Your task to perform on an android device: Search for macbook pro 15 inch on newegg, select the first entry, and add it to the cart. Image 0: 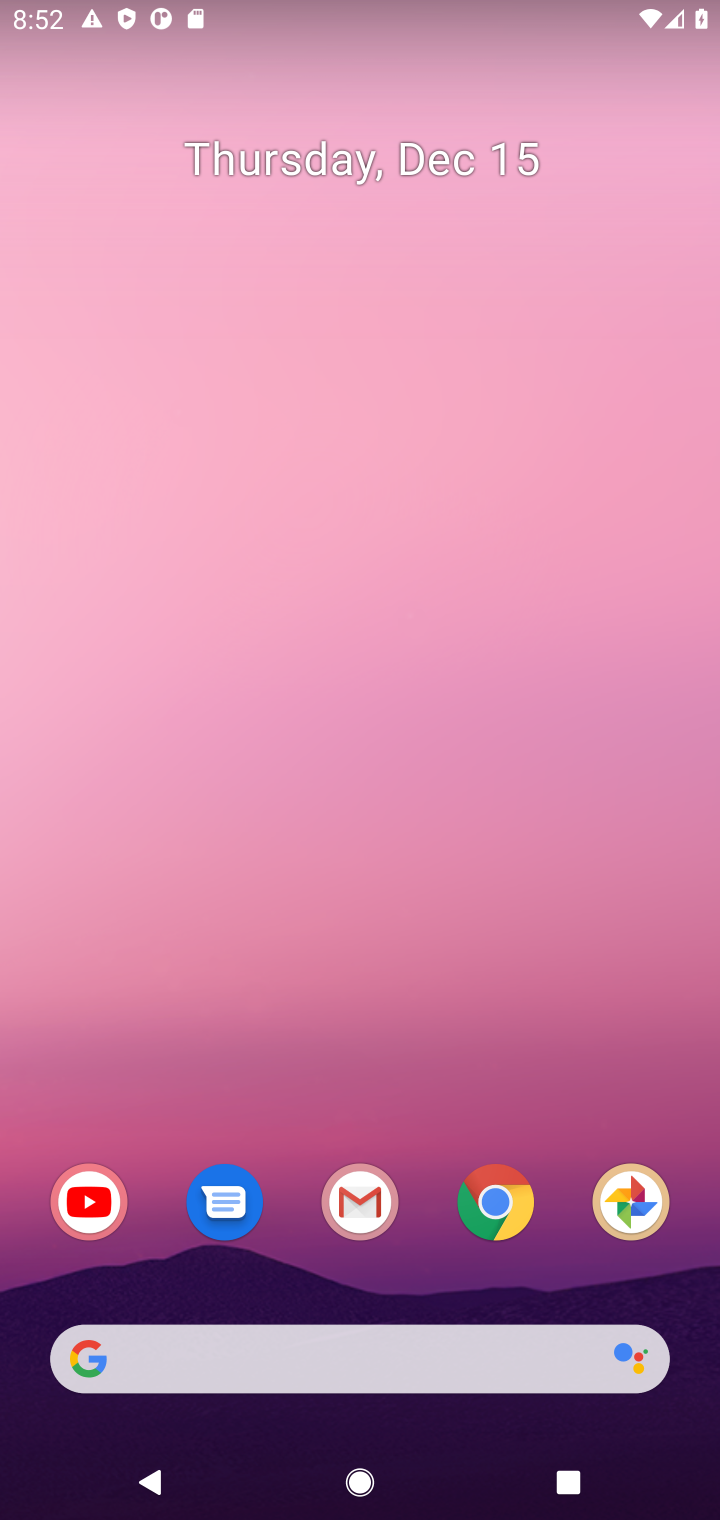
Step 0: click (504, 1202)
Your task to perform on an android device: Search for macbook pro 15 inch on newegg, select the first entry, and add it to the cart. Image 1: 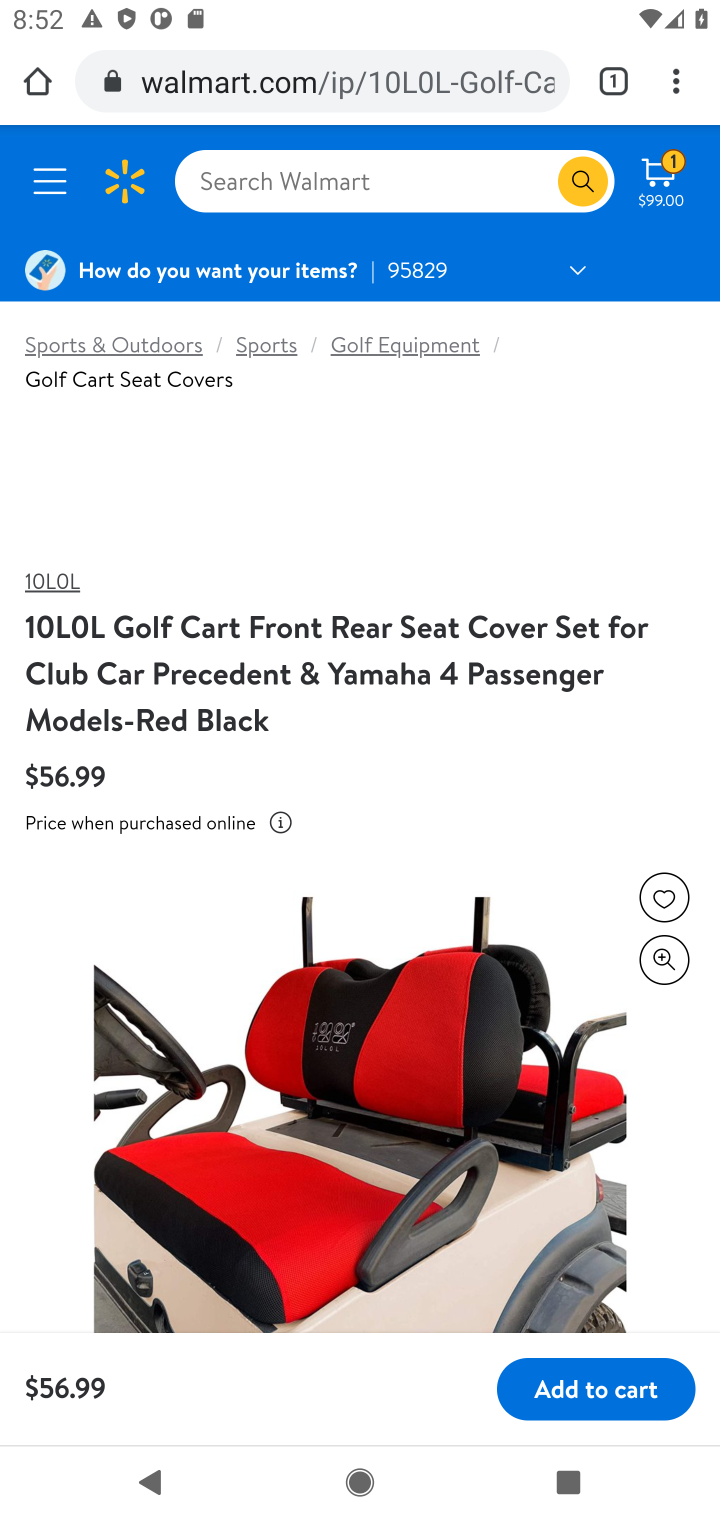
Step 1: click (270, 87)
Your task to perform on an android device: Search for macbook pro 15 inch on newegg, select the first entry, and add it to the cart. Image 2: 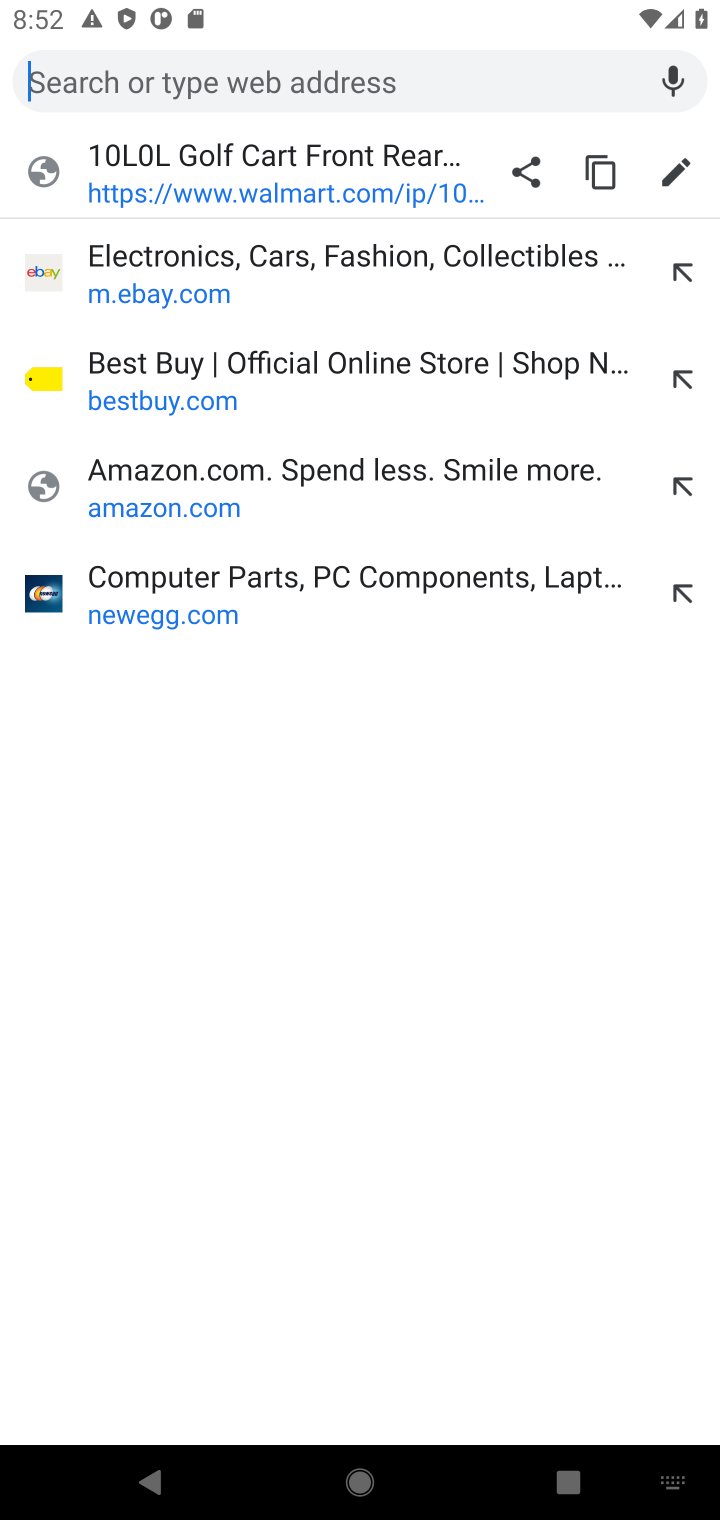
Step 2: click (162, 617)
Your task to perform on an android device: Search for macbook pro 15 inch on newegg, select the first entry, and add it to the cart. Image 3: 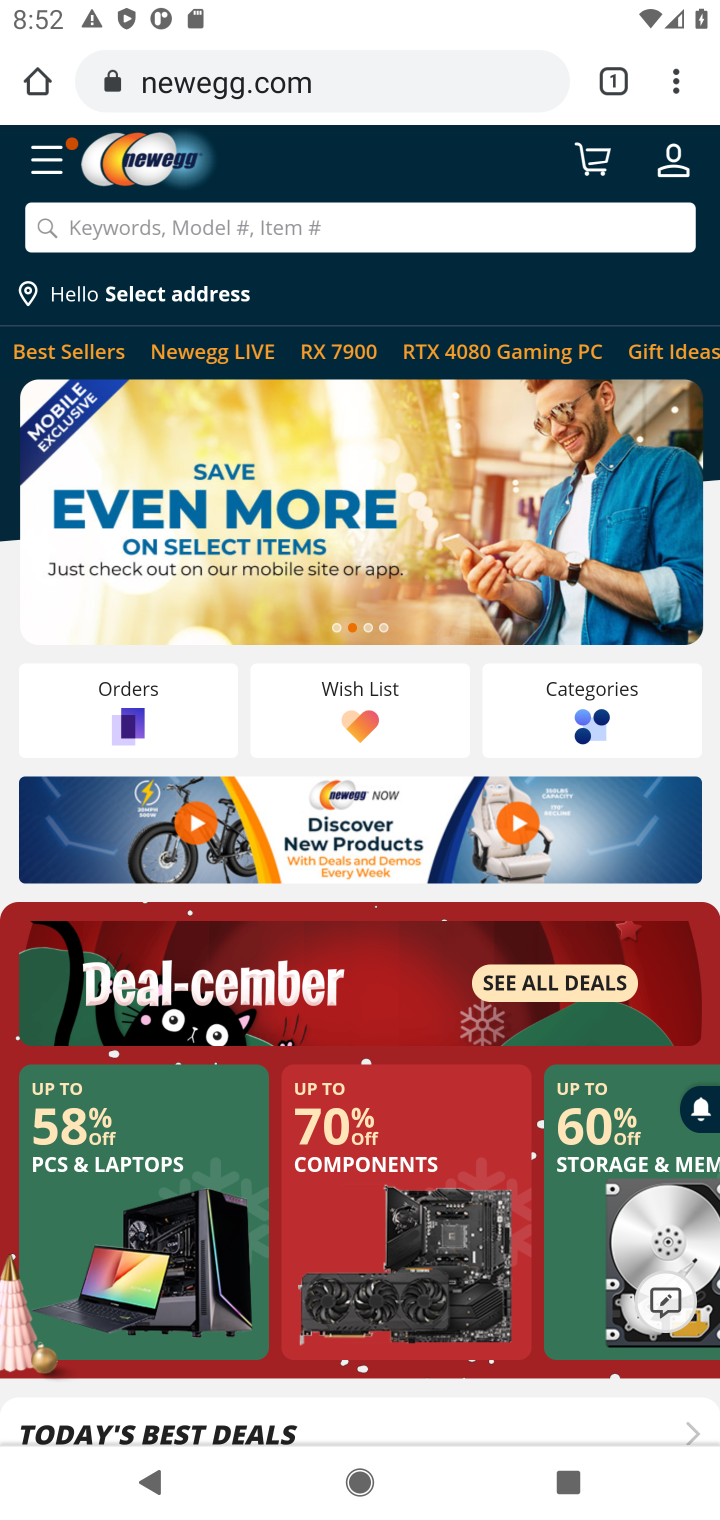
Step 3: click (81, 228)
Your task to perform on an android device: Search for macbook pro 15 inch on newegg, select the first entry, and add it to the cart. Image 4: 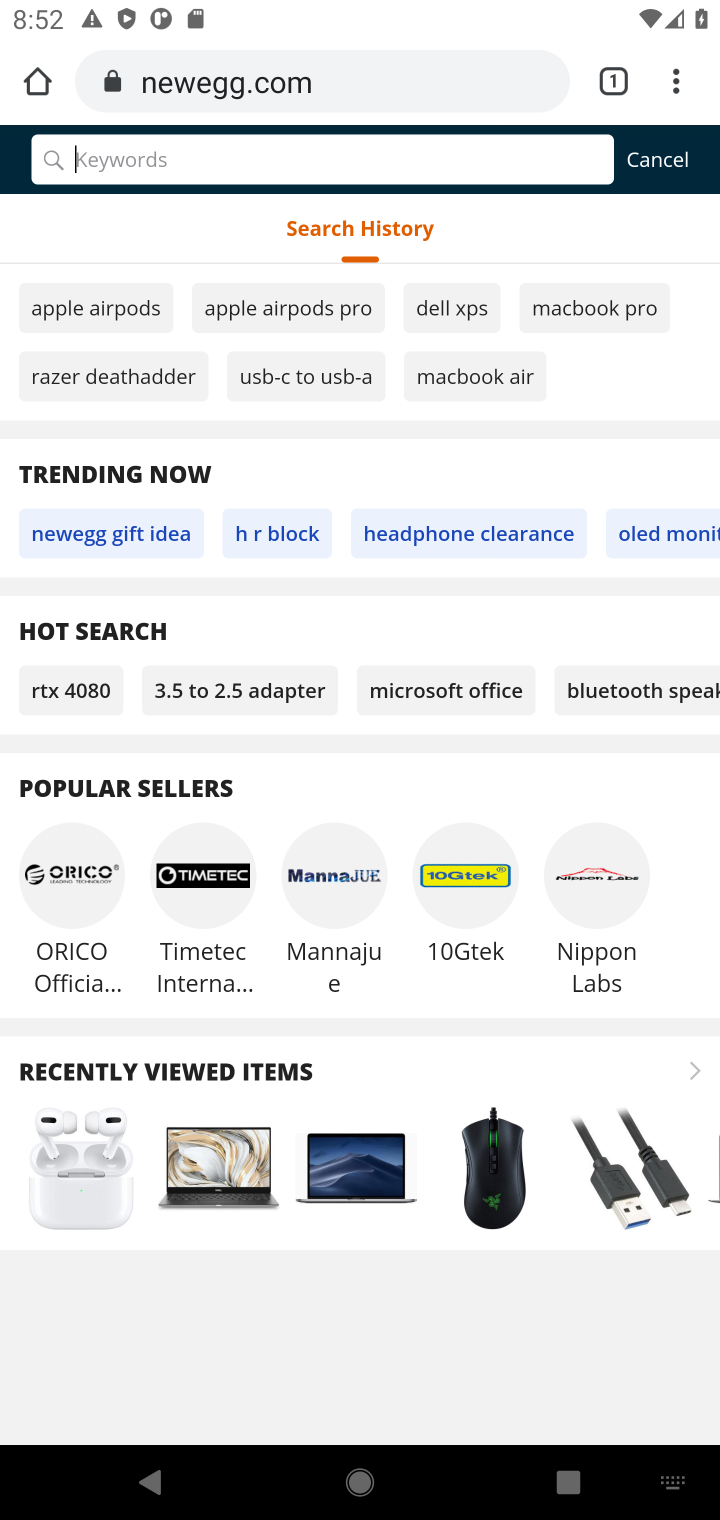
Step 4: type "macbook pro 15 inch"
Your task to perform on an android device: Search for macbook pro 15 inch on newegg, select the first entry, and add it to the cart. Image 5: 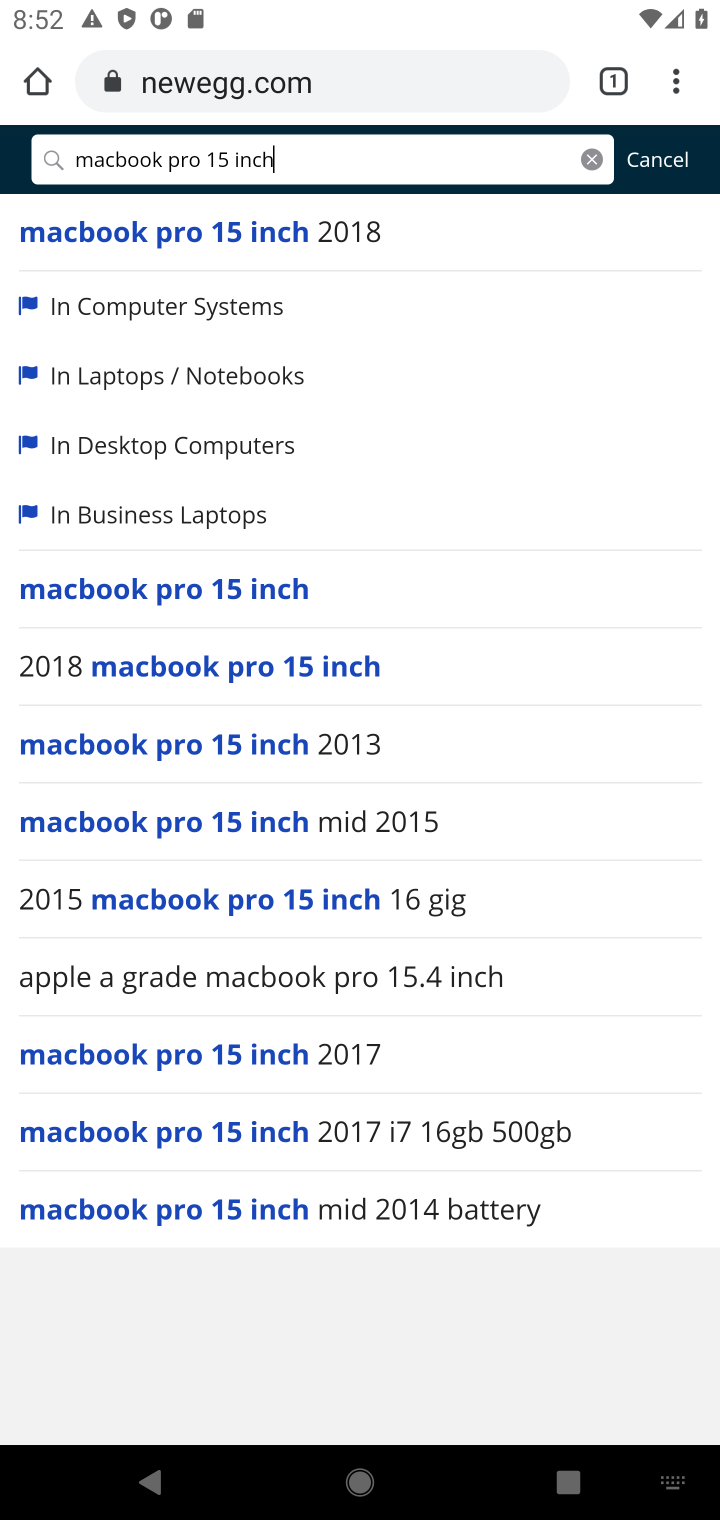
Step 5: click (138, 599)
Your task to perform on an android device: Search for macbook pro 15 inch on newegg, select the first entry, and add it to the cart. Image 6: 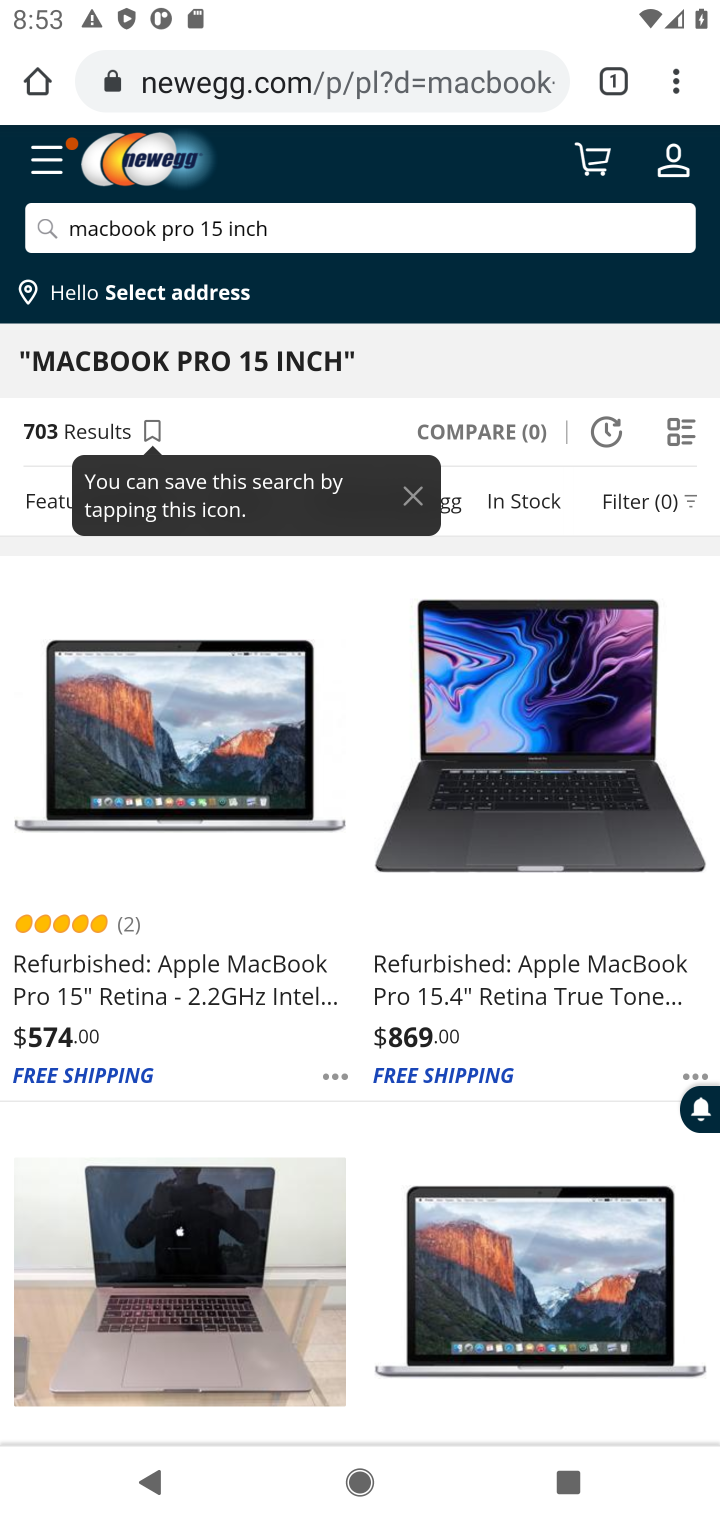
Step 6: click (176, 980)
Your task to perform on an android device: Search for macbook pro 15 inch on newegg, select the first entry, and add it to the cart. Image 7: 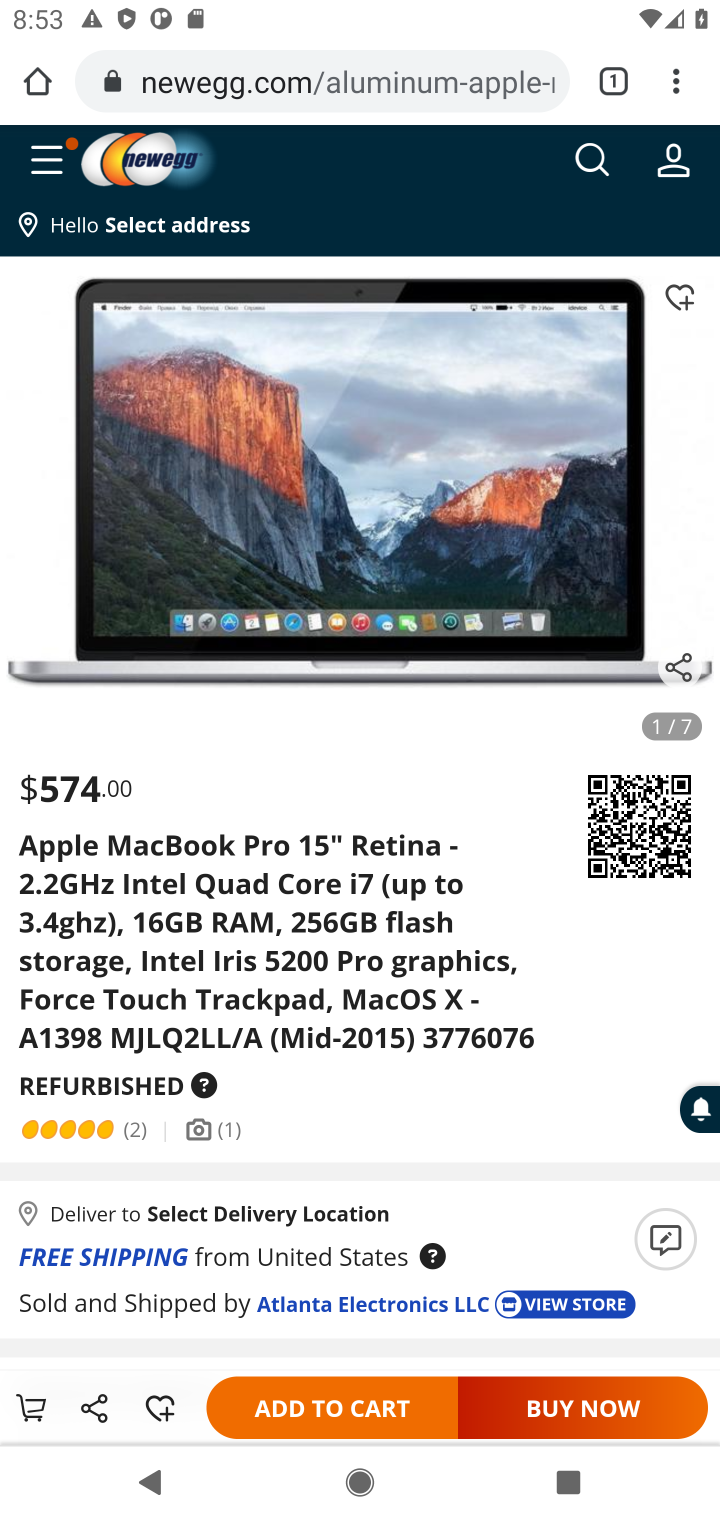
Step 7: click (295, 1400)
Your task to perform on an android device: Search for macbook pro 15 inch on newegg, select the first entry, and add it to the cart. Image 8: 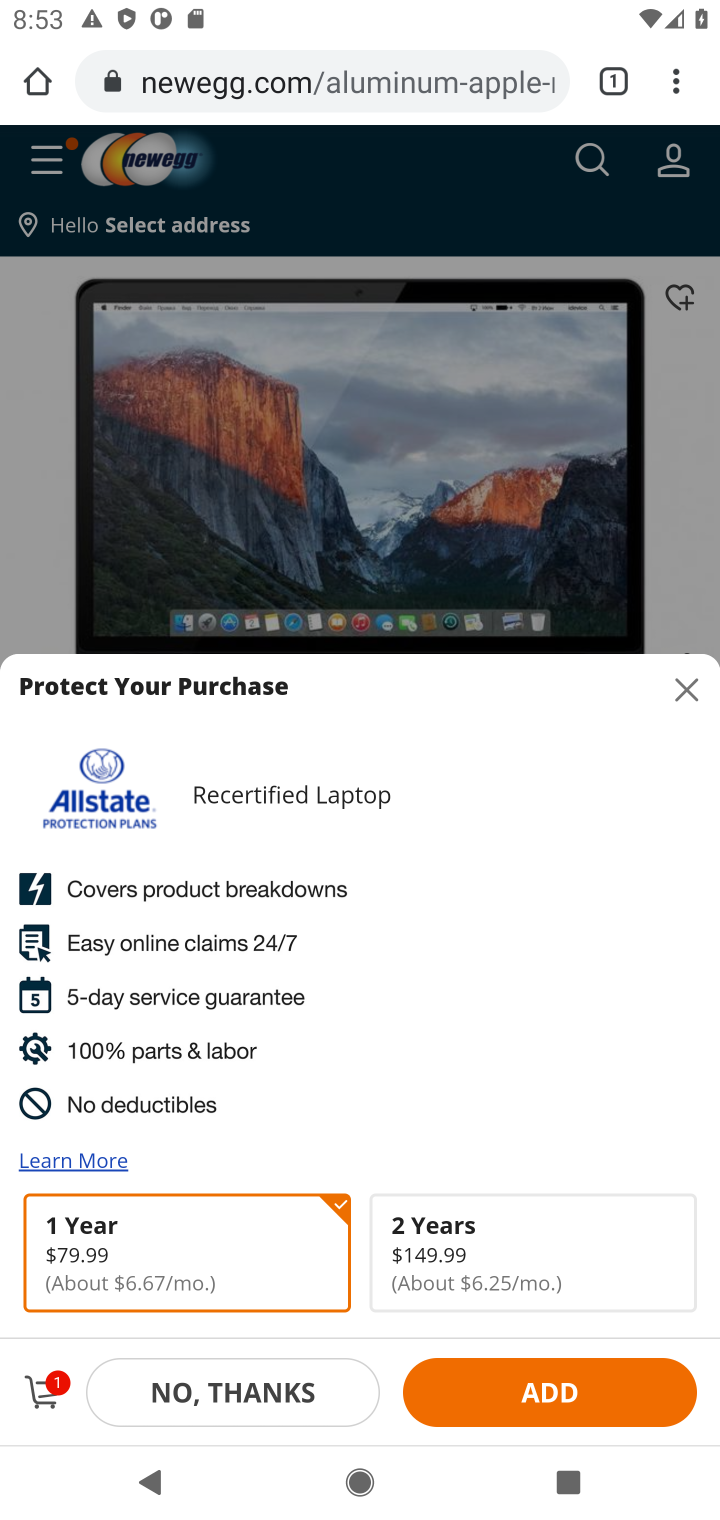
Step 8: task complete